Your task to perform on an android device: turn on sleep mode Image 0: 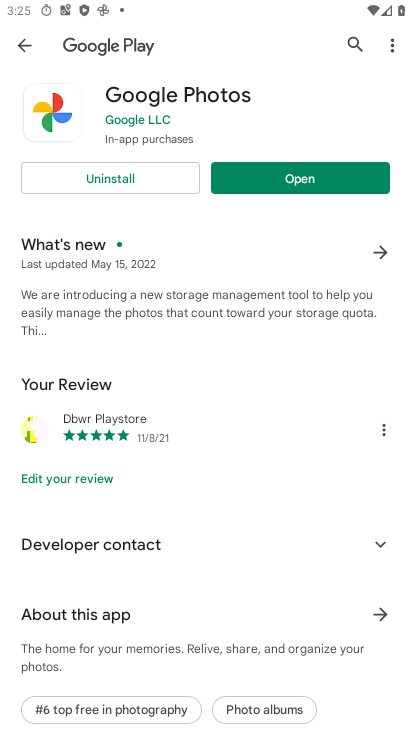
Step 0: press home button
Your task to perform on an android device: turn on sleep mode Image 1: 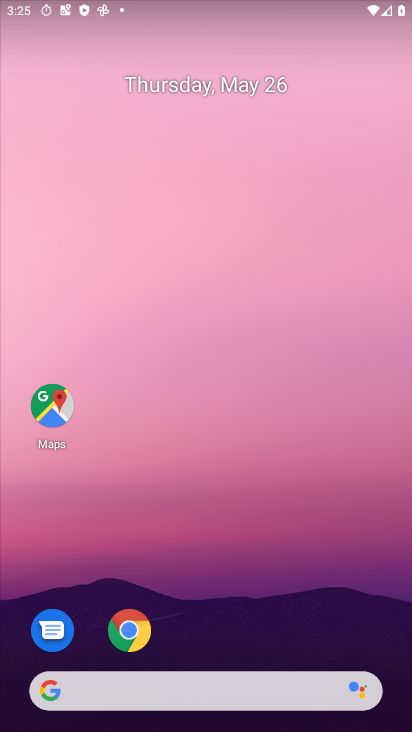
Step 1: drag from (171, 612) to (185, 366)
Your task to perform on an android device: turn on sleep mode Image 2: 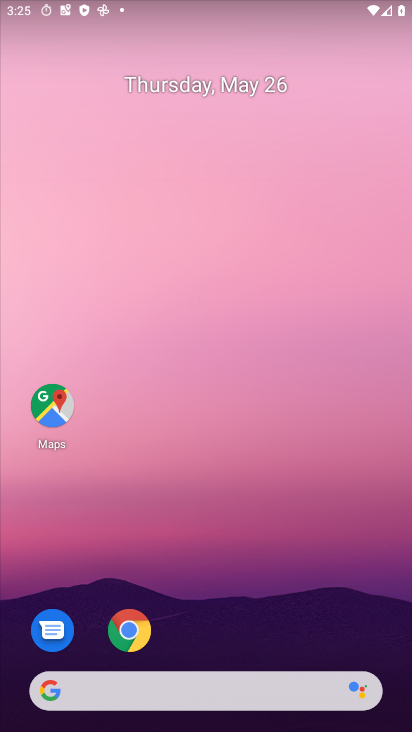
Step 2: drag from (220, 637) to (273, 202)
Your task to perform on an android device: turn on sleep mode Image 3: 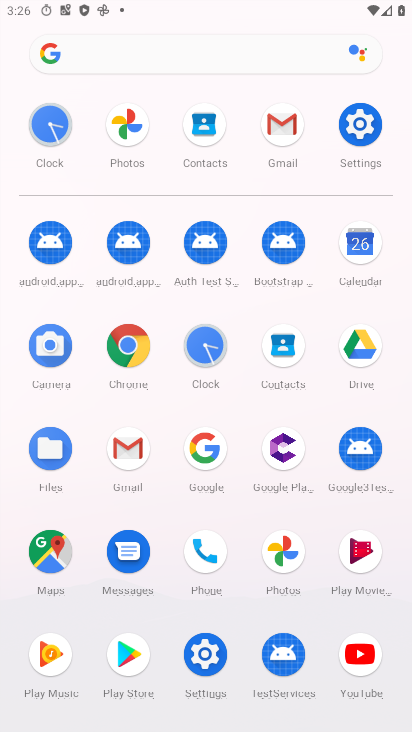
Step 3: click (376, 117)
Your task to perform on an android device: turn on sleep mode Image 4: 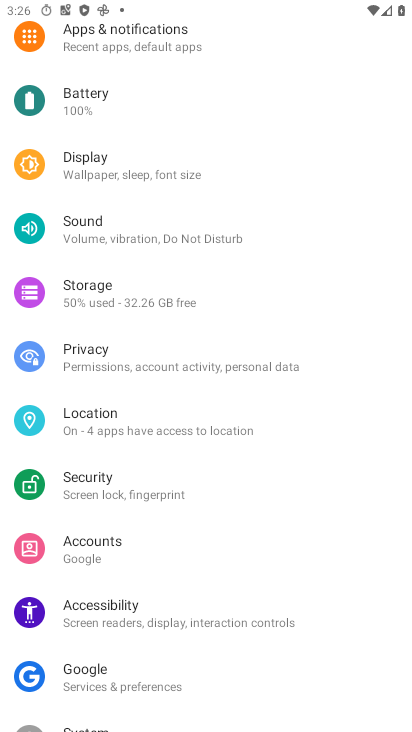
Step 4: click (114, 180)
Your task to perform on an android device: turn on sleep mode Image 5: 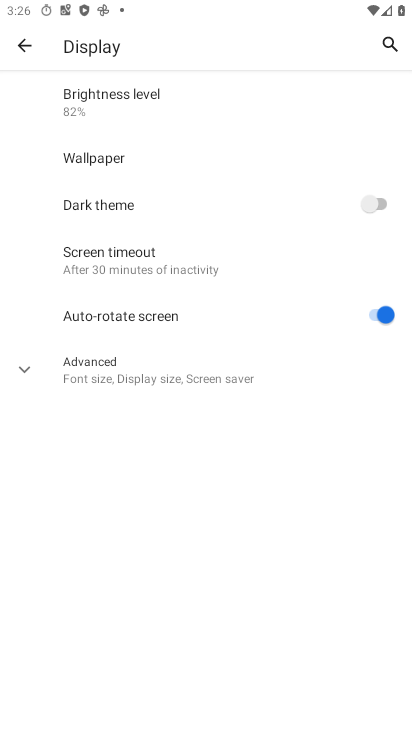
Step 5: click (123, 366)
Your task to perform on an android device: turn on sleep mode Image 6: 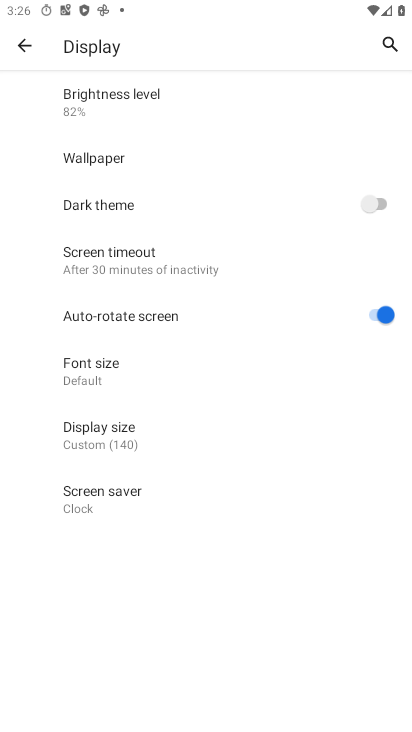
Step 6: task complete